Your task to perform on an android device: What's on my calendar today? Image 0: 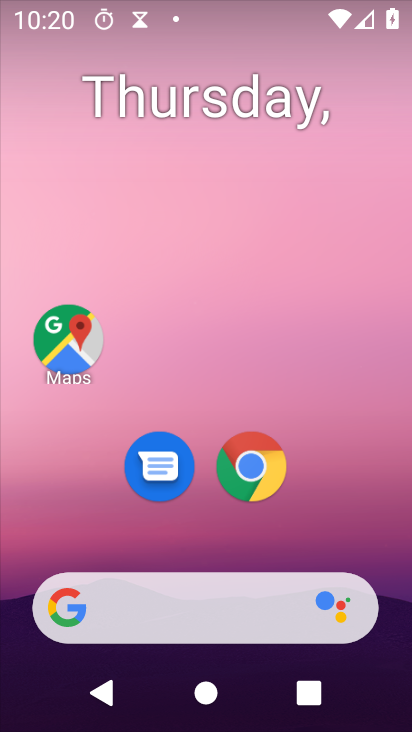
Step 0: click (326, 70)
Your task to perform on an android device: What's on my calendar today? Image 1: 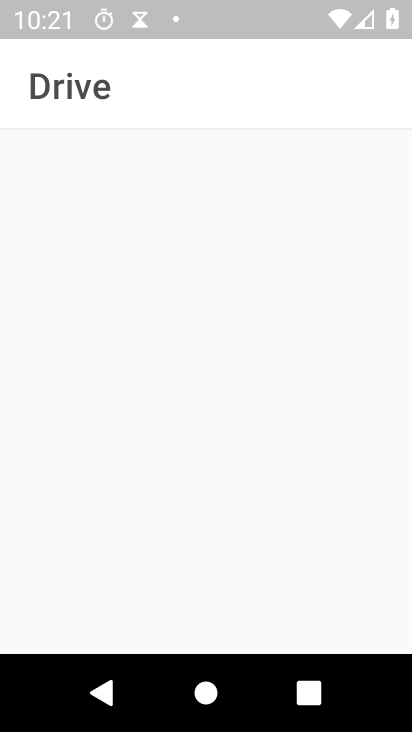
Step 1: press home button
Your task to perform on an android device: What's on my calendar today? Image 2: 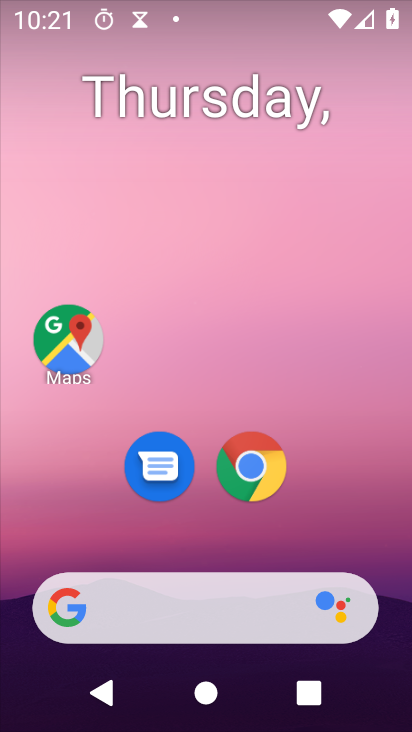
Step 2: drag from (156, 571) to (284, 0)
Your task to perform on an android device: What's on my calendar today? Image 3: 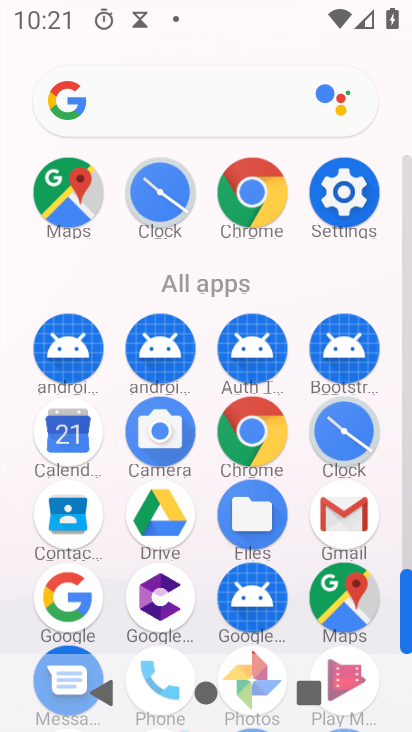
Step 3: click (70, 439)
Your task to perform on an android device: What's on my calendar today? Image 4: 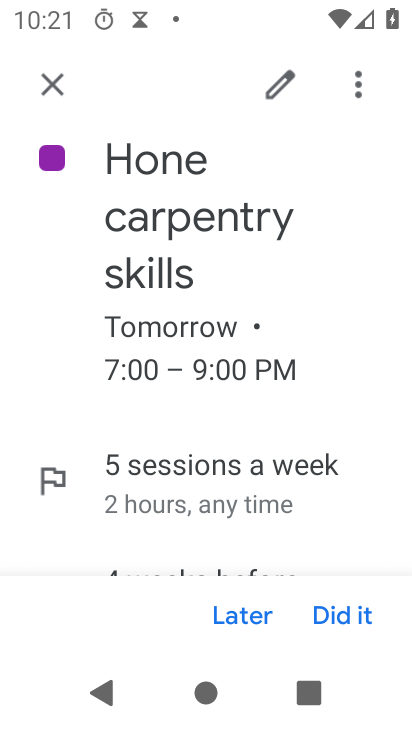
Step 4: click (54, 71)
Your task to perform on an android device: What's on my calendar today? Image 5: 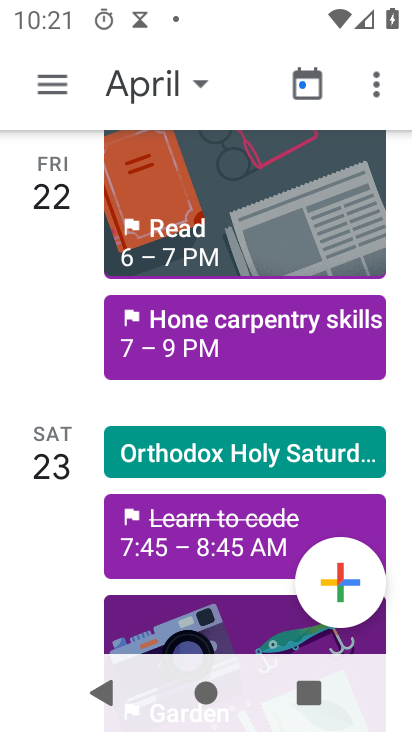
Step 5: click (131, 76)
Your task to perform on an android device: What's on my calendar today? Image 6: 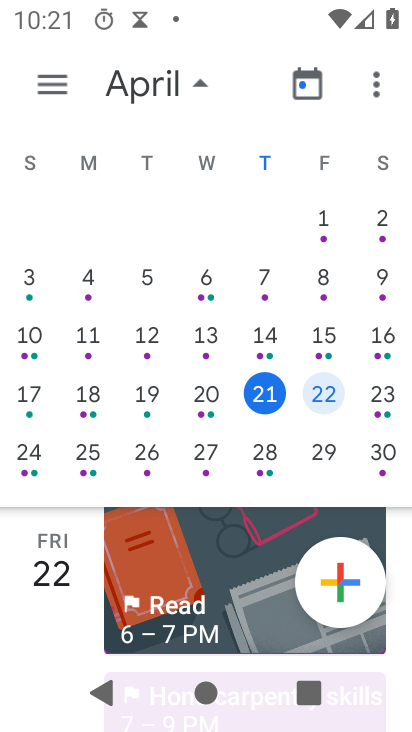
Step 6: click (261, 396)
Your task to perform on an android device: What's on my calendar today? Image 7: 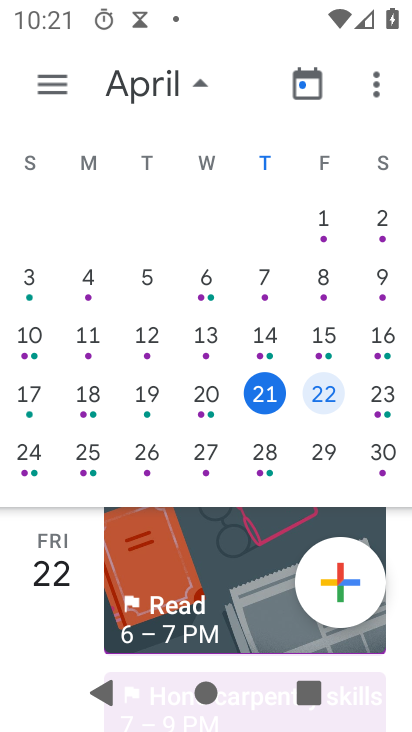
Step 7: click (260, 406)
Your task to perform on an android device: What's on my calendar today? Image 8: 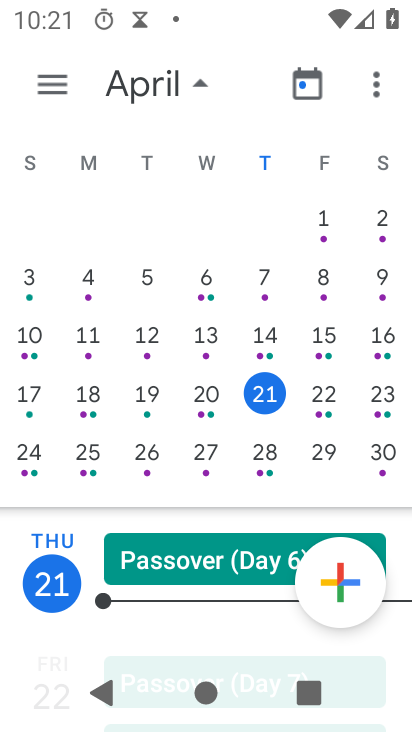
Step 8: click (51, 79)
Your task to perform on an android device: What's on my calendar today? Image 9: 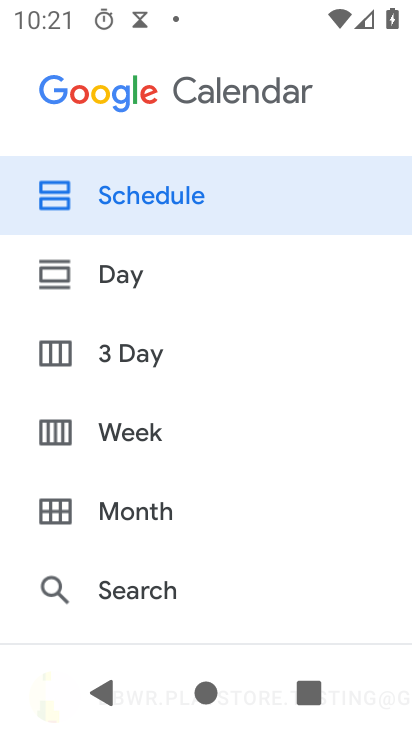
Step 9: click (131, 270)
Your task to perform on an android device: What's on my calendar today? Image 10: 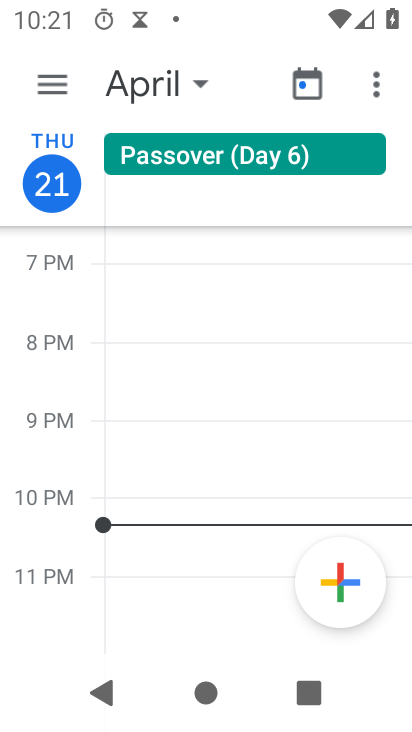
Step 10: click (40, 78)
Your task to perform on an android device: What's on my calendar today? Image 11: 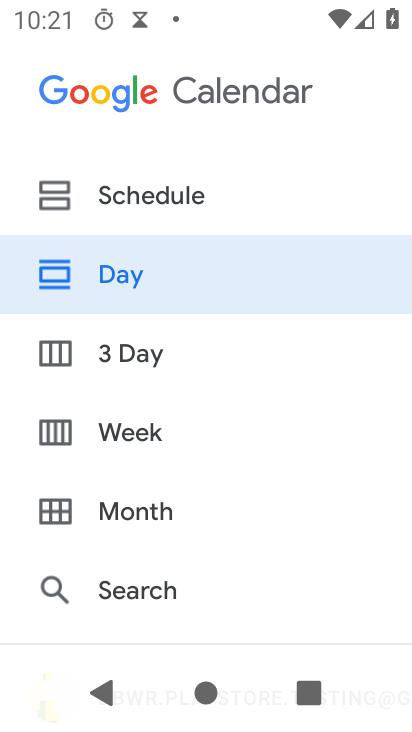
Step 11: click (149, 198)
Your task to perform on an android device: What's on my calendar today? Image 12: 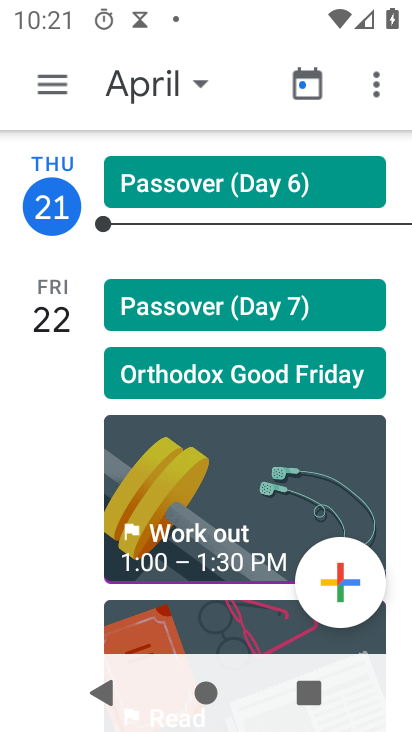
Step 12: task complete